Your task to perform on an android device: Open notification settings Image 0: 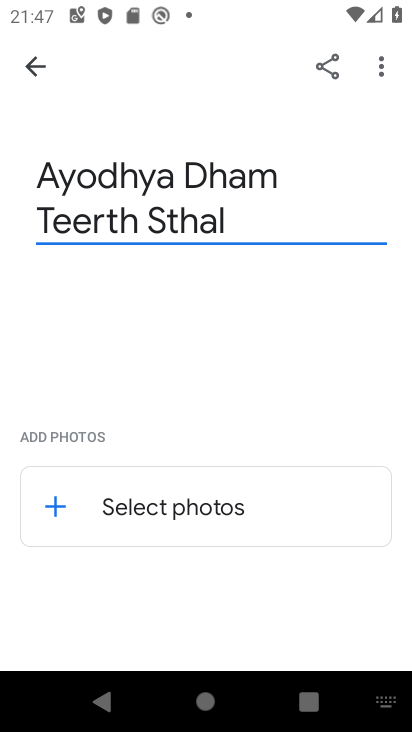
Step 0: press home button
Your task to perform on an android device: Open notification settings Image 1: 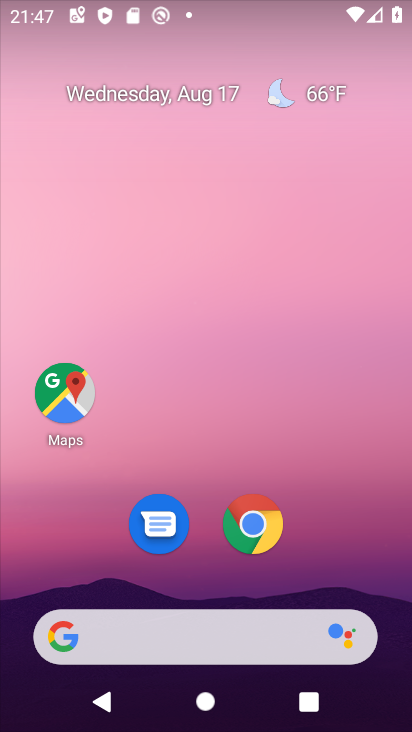
Step 1: drag from (318, 536) to (321, 18)
Your task to perform on an android device: Open notification settings Image 2: 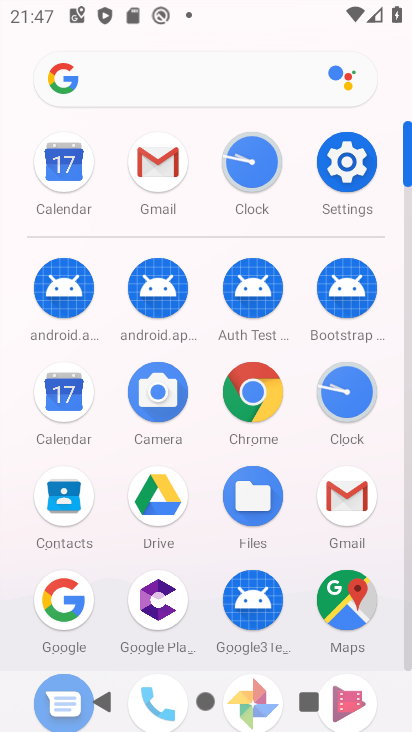
Step 2: click (348, 160)
Your task to perform on an android device: Open notification settings Image 3: 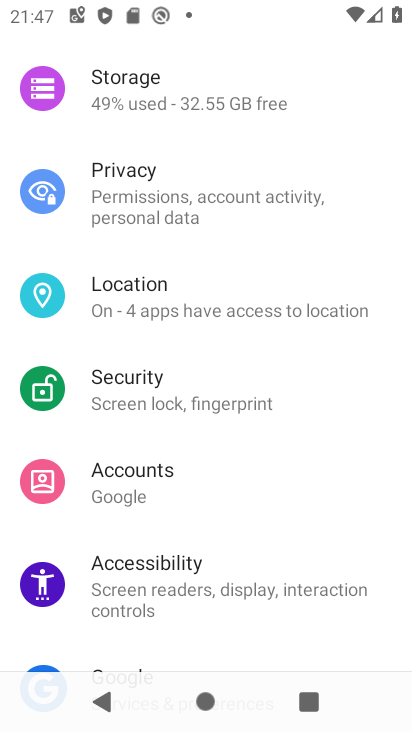
Step 3: drag from (253, 259) to (214, 587)
Your task to perform on an android device: Open notification settings Image 4: 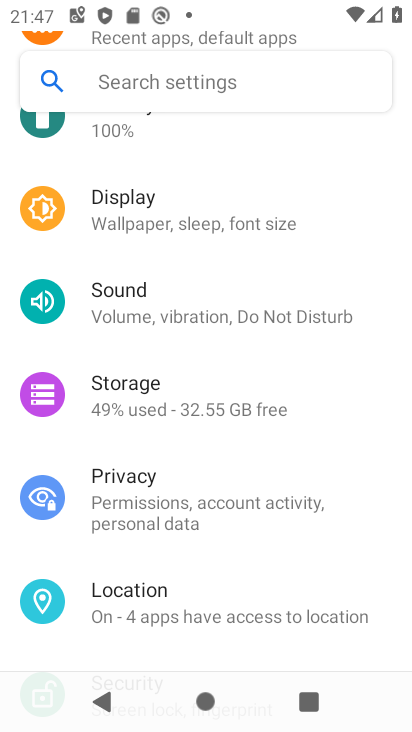
Step 4: drag from (248, 305) to (235, 539)
Your task to perform on an android device: Open notification settings Image 5: 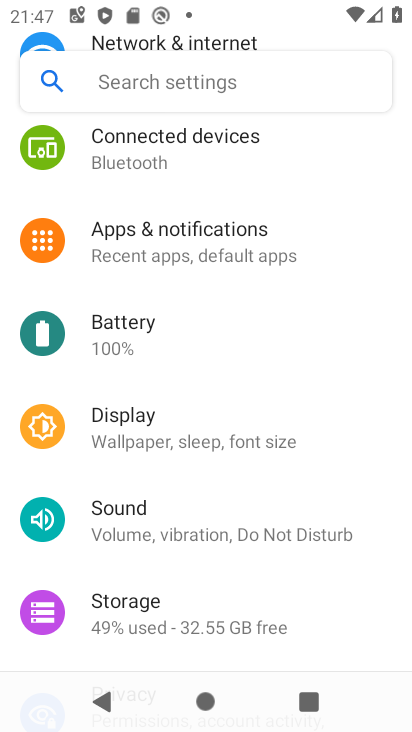
Step 5: click (244, 248)
Your task to perform on an android device: Open notification settings Image 6: 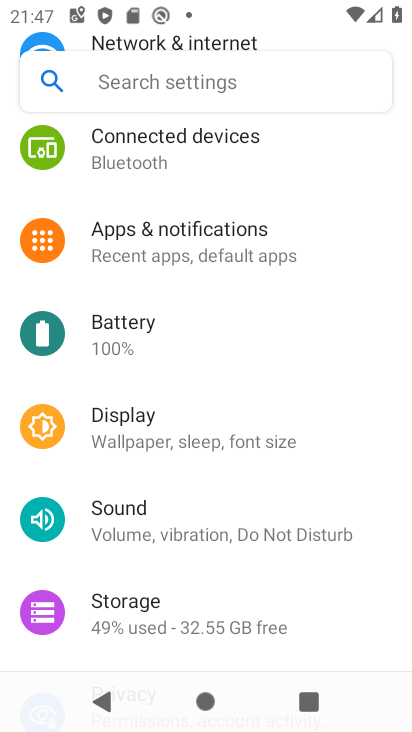
Step 6: click (244, 248)
Your task to perform on an android device: Open notification settings Image 7: 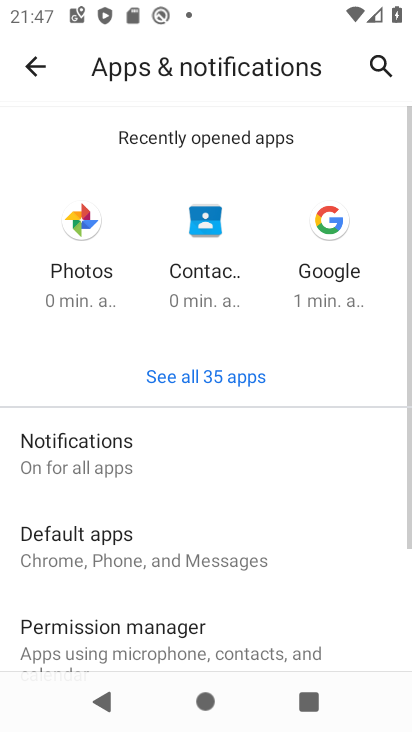
Step 7: click (108, 435)
Your task to perform on an android device: Open notification settings Image 8: 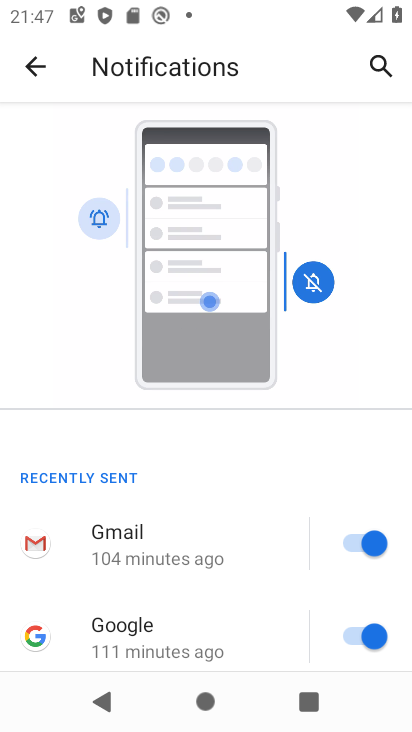
Step 8: task complete